Your task to perform on an android device: Search for coffee table on Crate & Barrel Image 0: 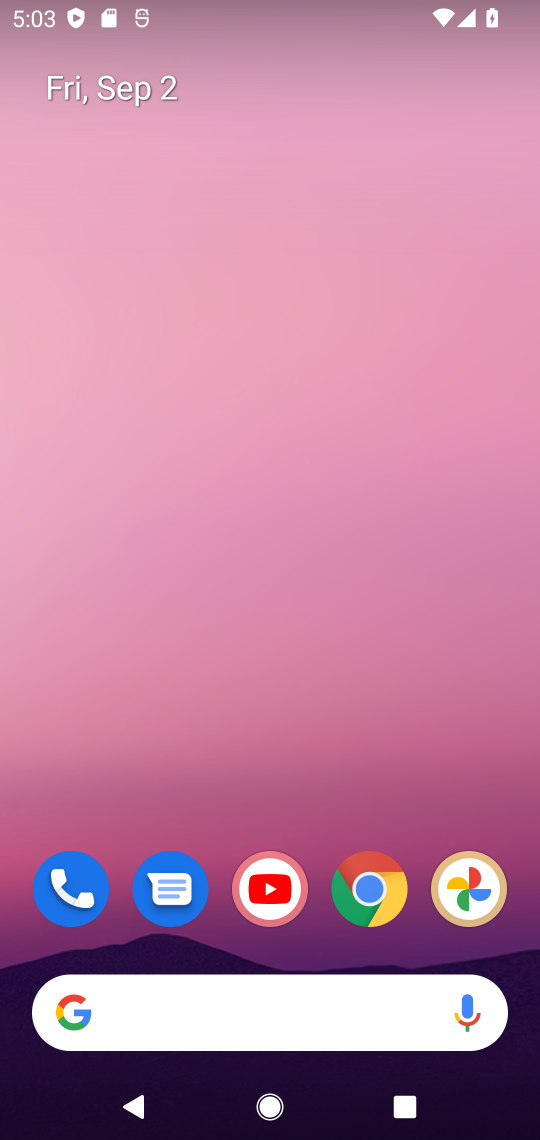
Step 0: click (239, 986)
Your task to perform on an android device: Search for coffee table on Crate & Barrel Image 1: 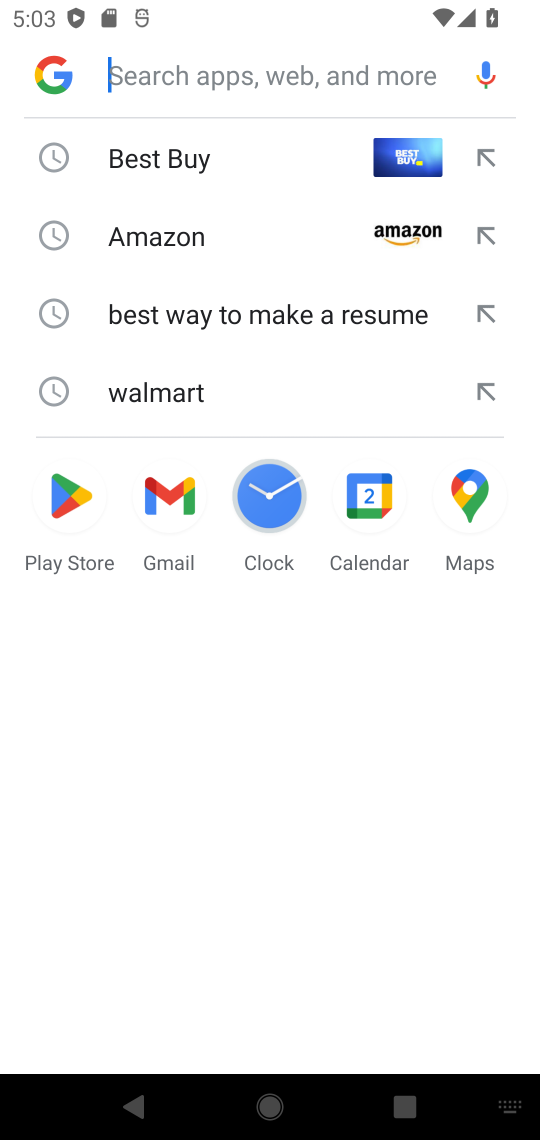
Step 1: type "Crate & Barrel"
Your task to perform on an android device: Search for coffee table on Crate & Barrel Image 2: 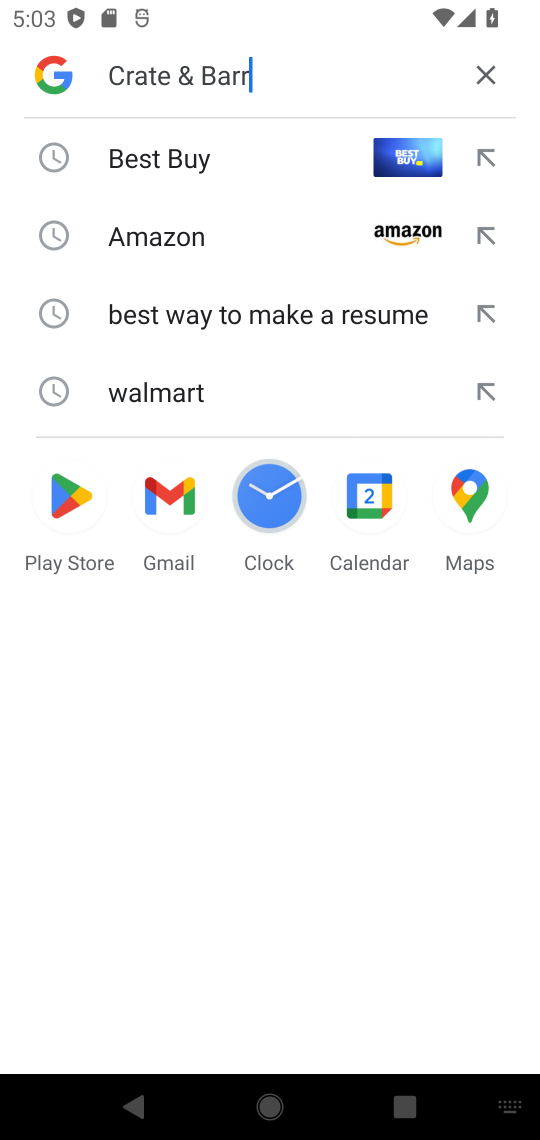
Step 2: type ""
Your task to perform on an android device: Search for coffee table on Crate & Barrel Image 3: 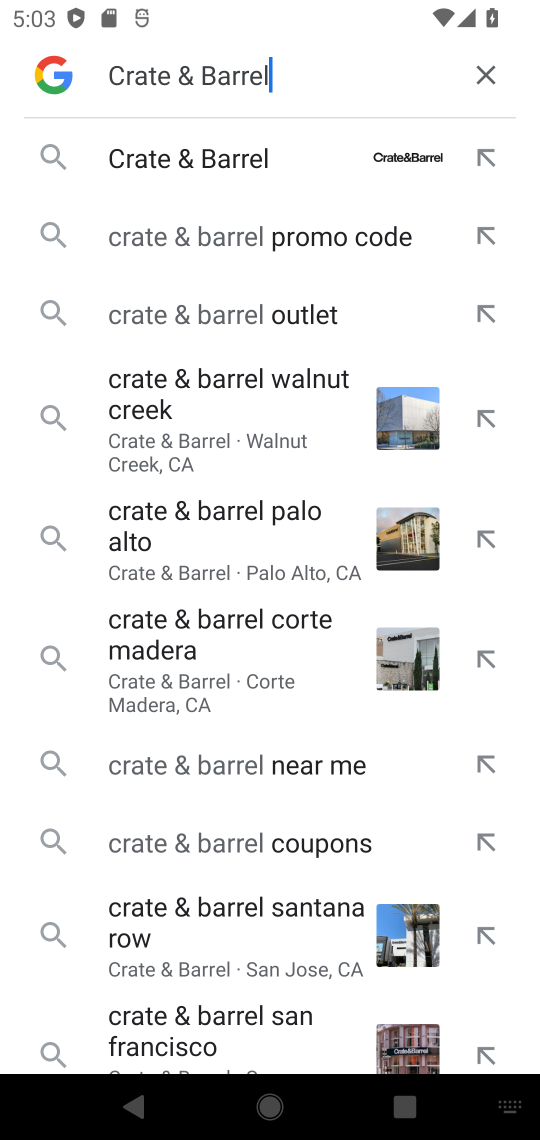
Step 3: click (233, 161)
Your task to perform on an android device: Search for coffee table on Crate & Barrel Image 4: 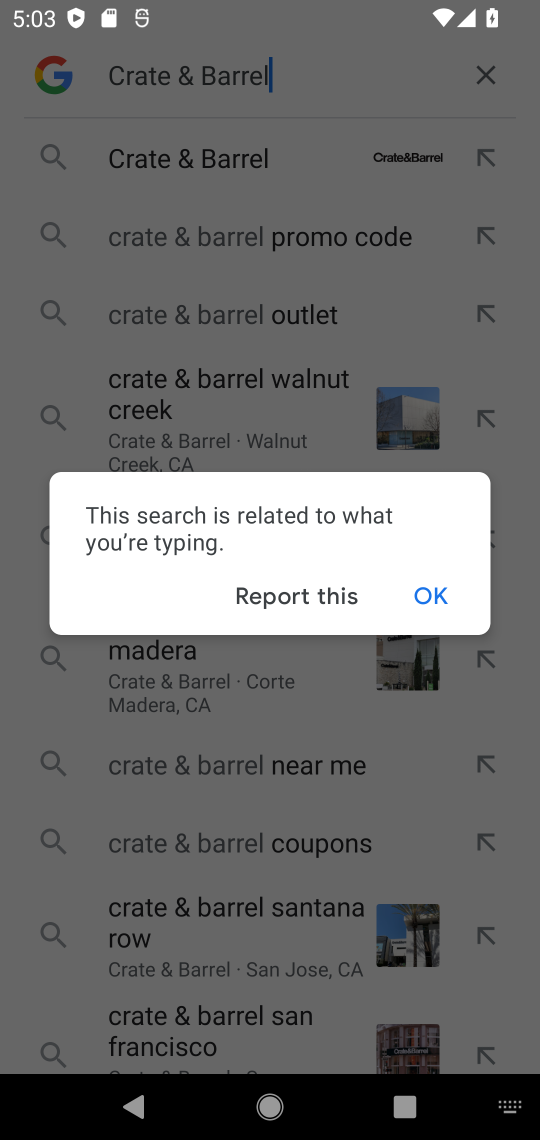
Step 4: click (427, 587)
Your task to perform on an android device: Search for coffee table on Crate & Barrel Image 5: 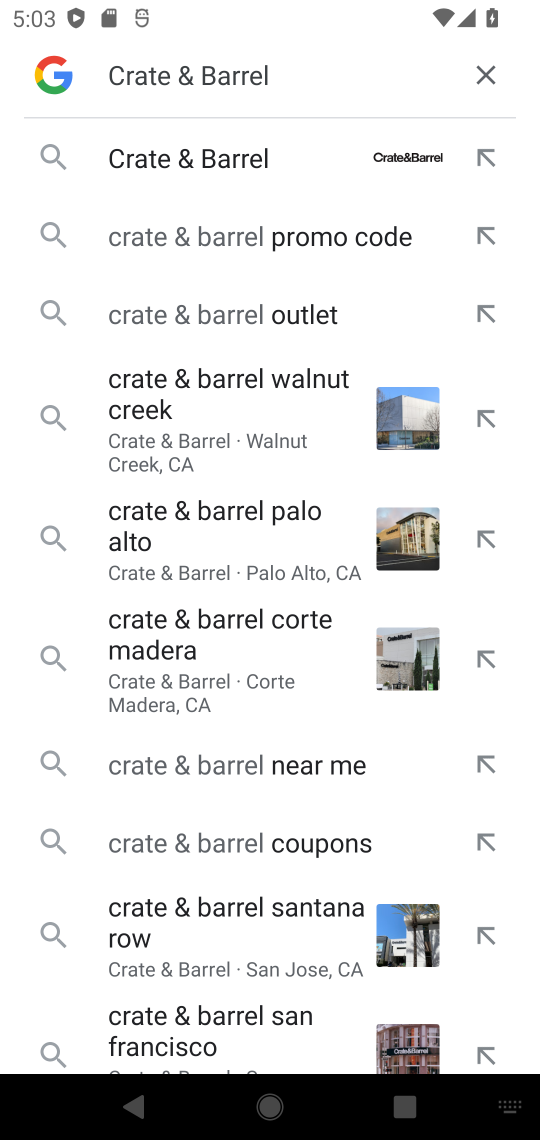
Step 5: click (233, 159)
Your task to perform on an android device: Search for coffee table on Crate & Barrel Image 6: 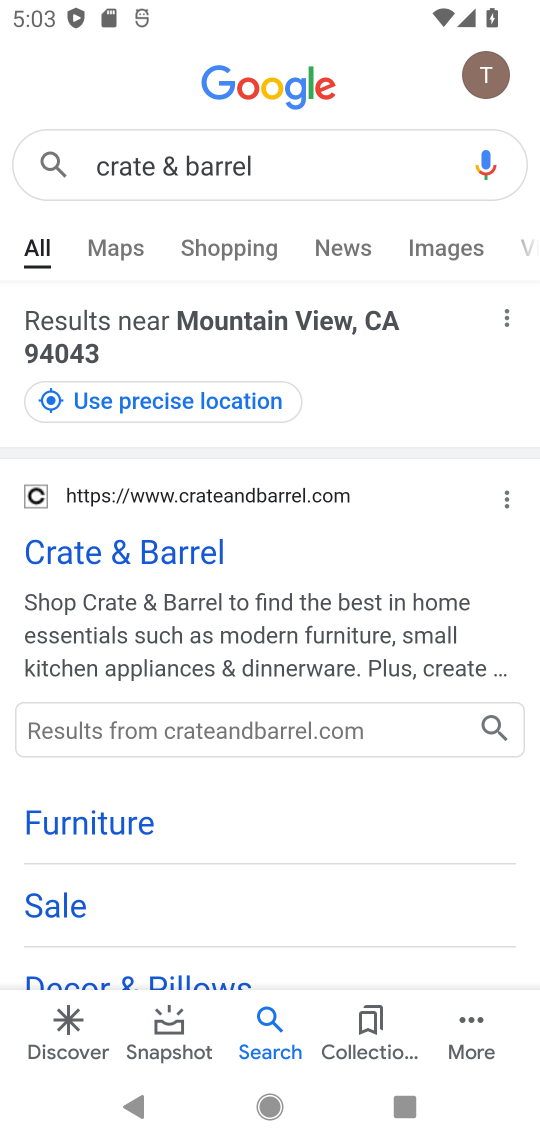
Step 6: click (167, 554)
Your task to perform on an android device: Search for coffee table on Crate & Barrel Image 7: 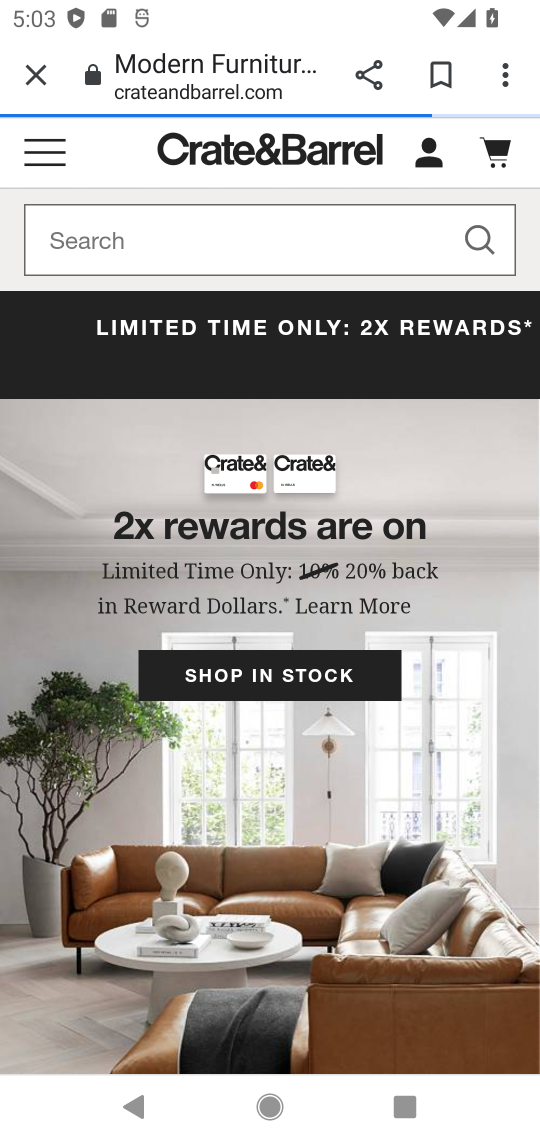
Step 7: click (225, 227)
Your task to perform on an android device: Search for coffee table on Crate & Barrel Image 8: 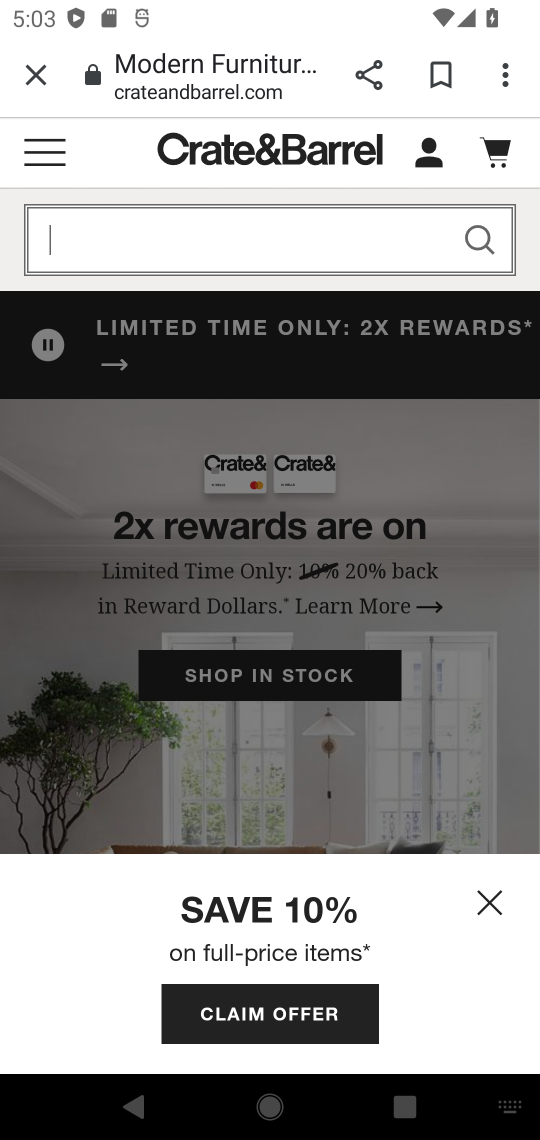
Step 8: click (540, 1076)
Your task to perform on an android device: Search for coffee table on Crate & Barrel Image 9: 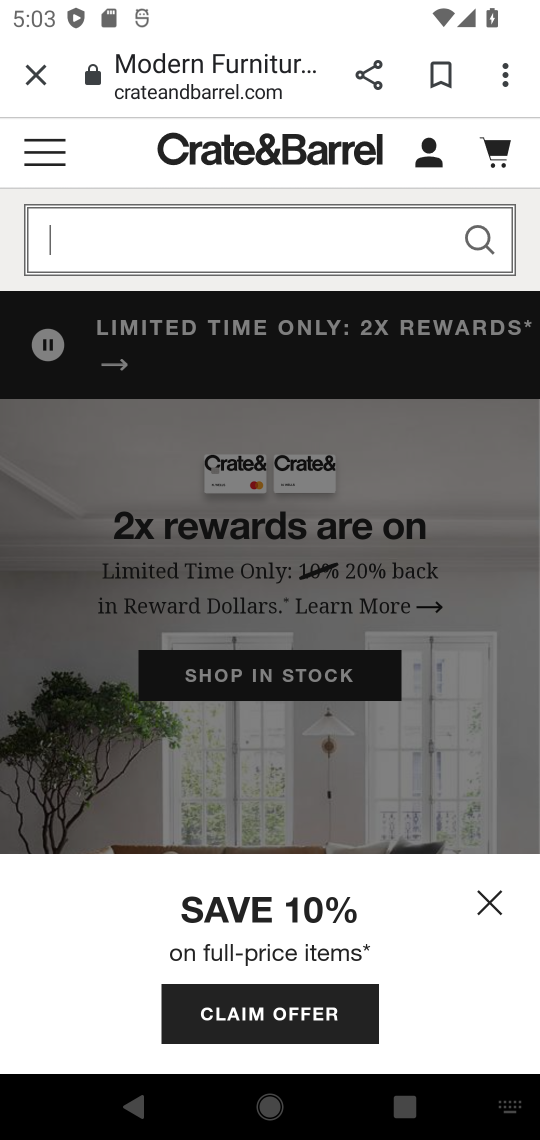
Step 9: type "coffee table"
Your task to perform on an android device: Search for coffee table on Crate & Barrel Image 10: 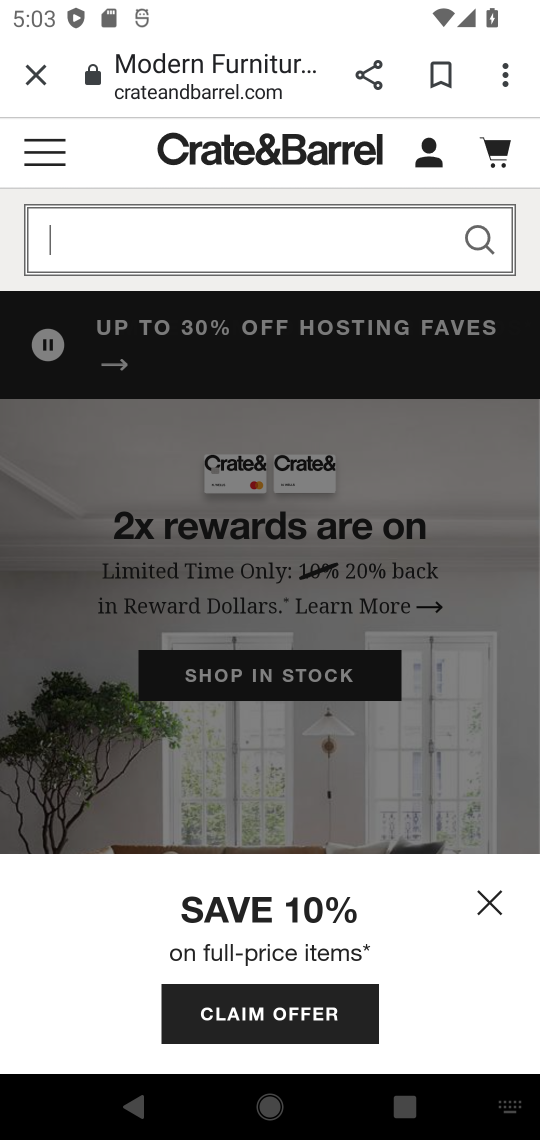
Step 10: drag from (540, 1076) to (532, 976)
Your task to perform on an android device: Search for coffee table on Crate & Barrel Image 11: 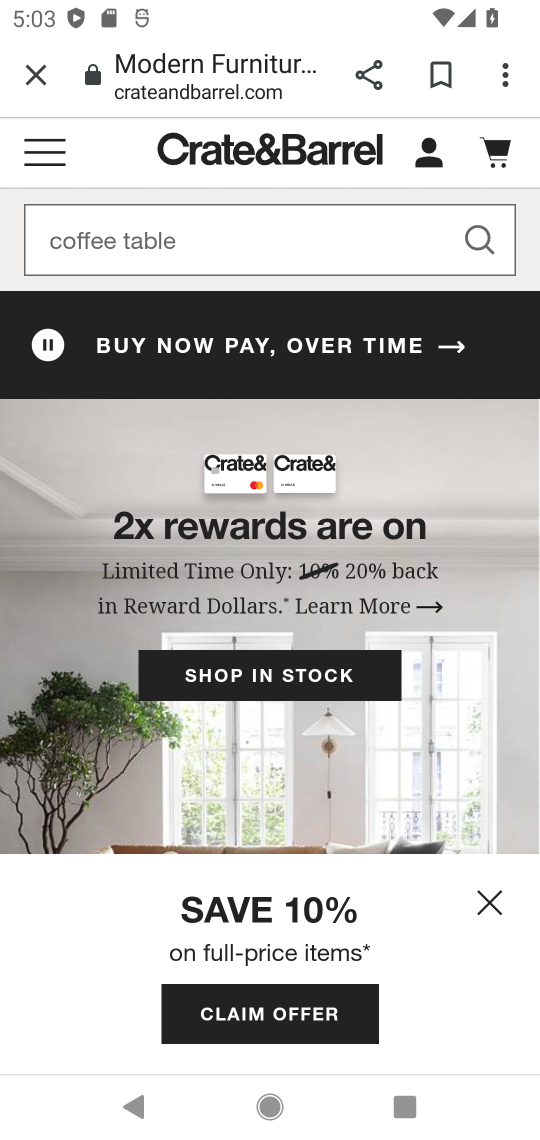
Step 11: click (492, 241)
Your task to perform on an android device: Search for coffee table on Crate & Barrel Image 12: 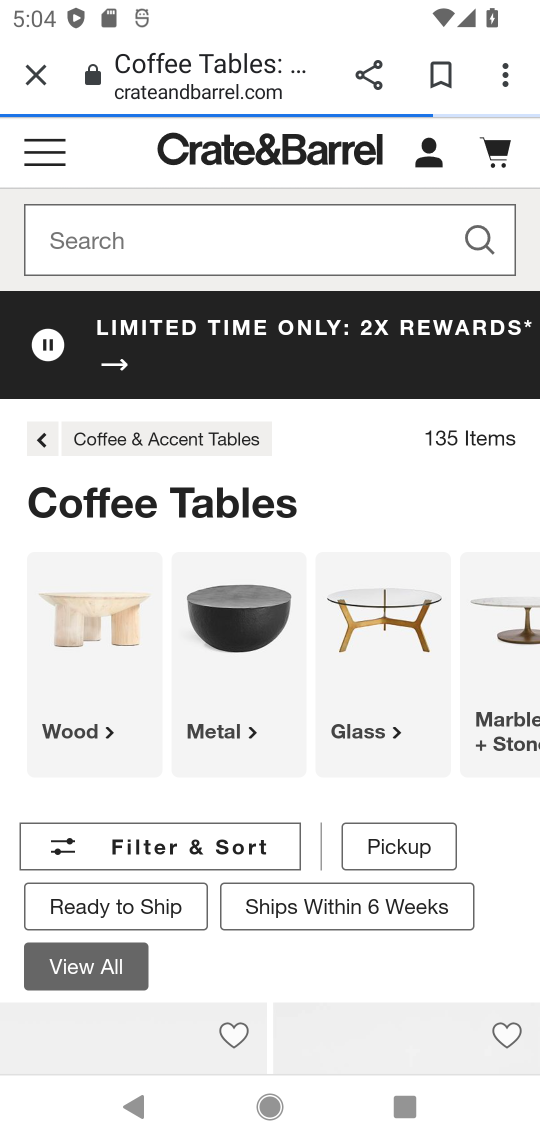
Step 12: task complete